Your task to perform on an android device: install app "Mercado Libre" Image 0: 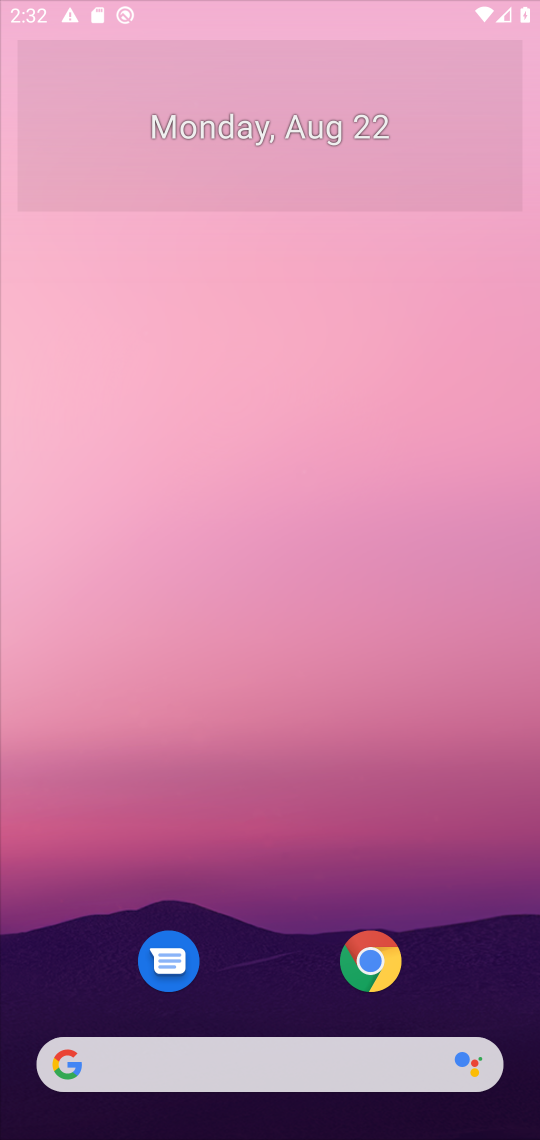
Step 0: press home button
Your task to perform on an android device: install app "Mercado Libre" Image 1: 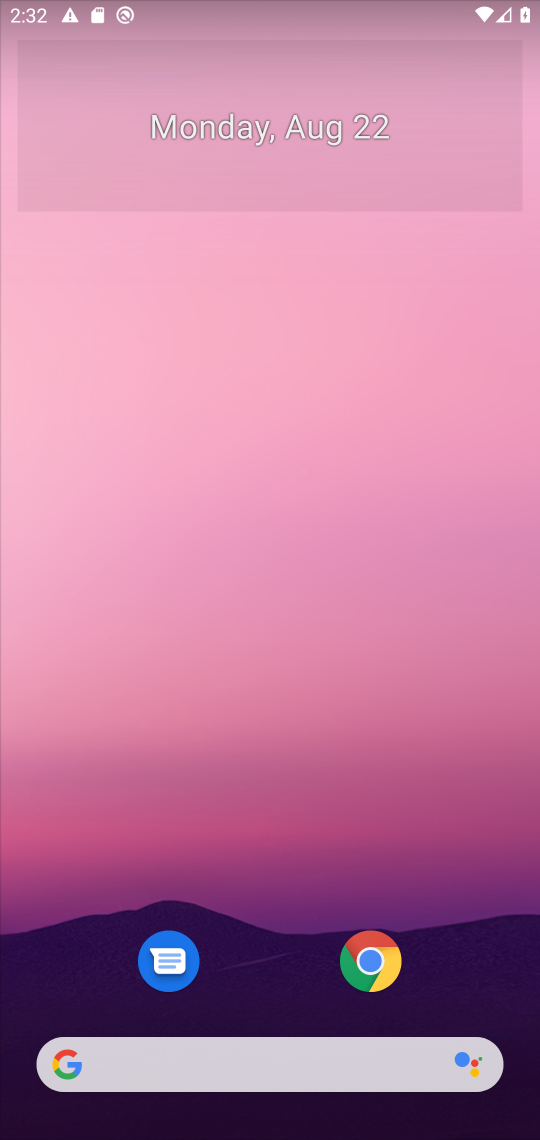
Step 1: drag from (443, 987) to (425, 389)
Your task to perform on an android device: install app "Mercado Libre" Image 2: 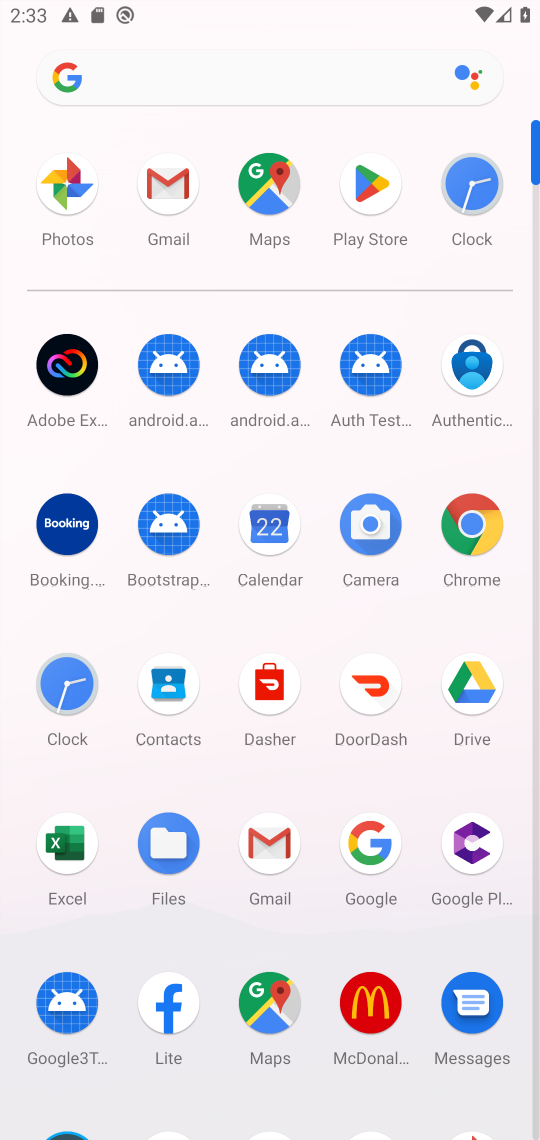
Step 2: click (372, 177)
Your task to perform on an android device: install app "Mercado Libre" Image 3: 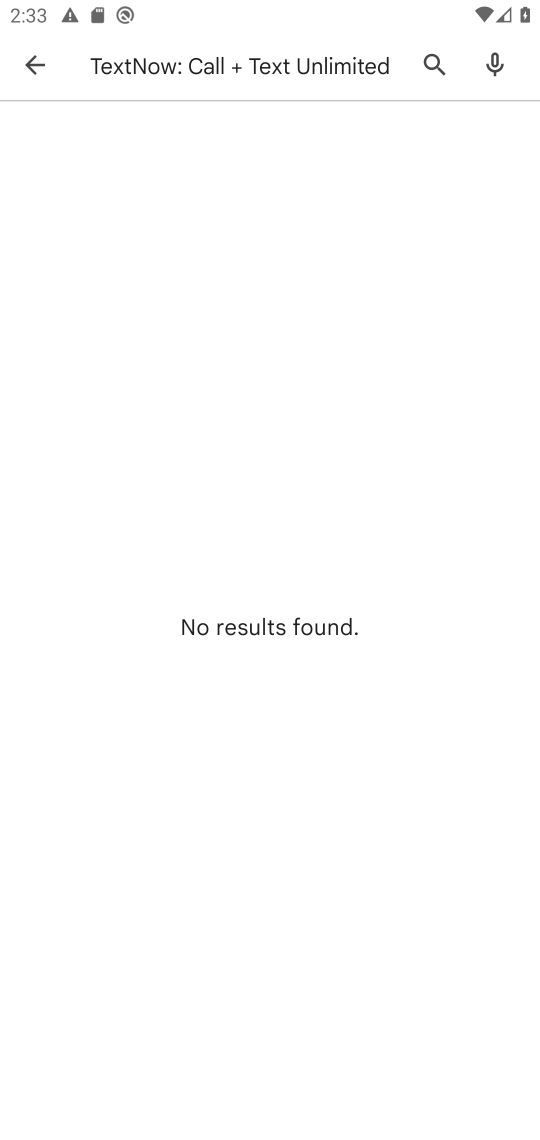
Step 3: press back button
Your task to perform on an android device: install app "Mercado Libre" Image 4: 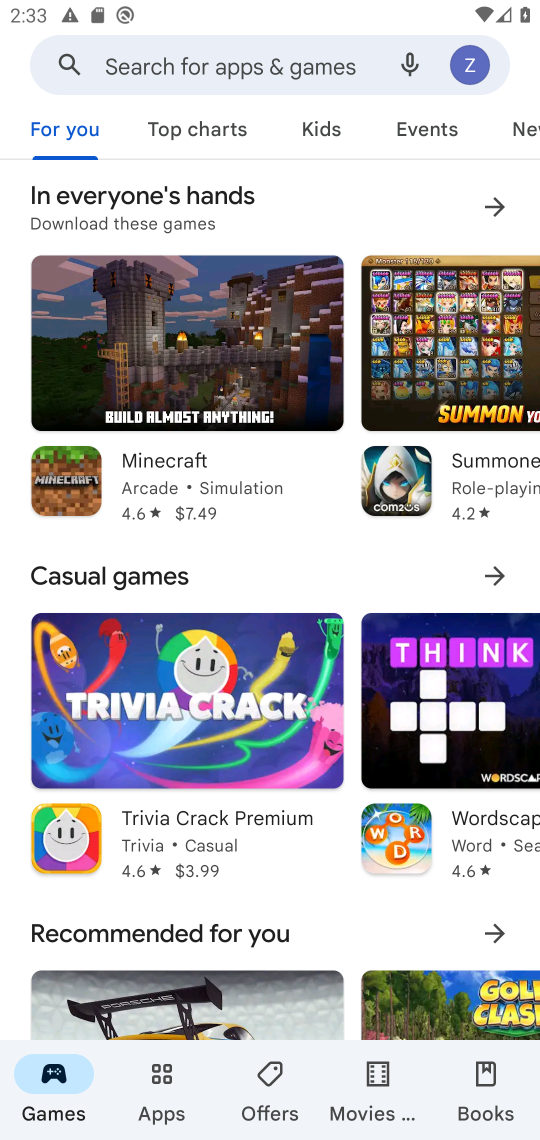
Step 4: click (297, 62)
Your task to perform on an android device: install app "Mercado Libre" Image 5: 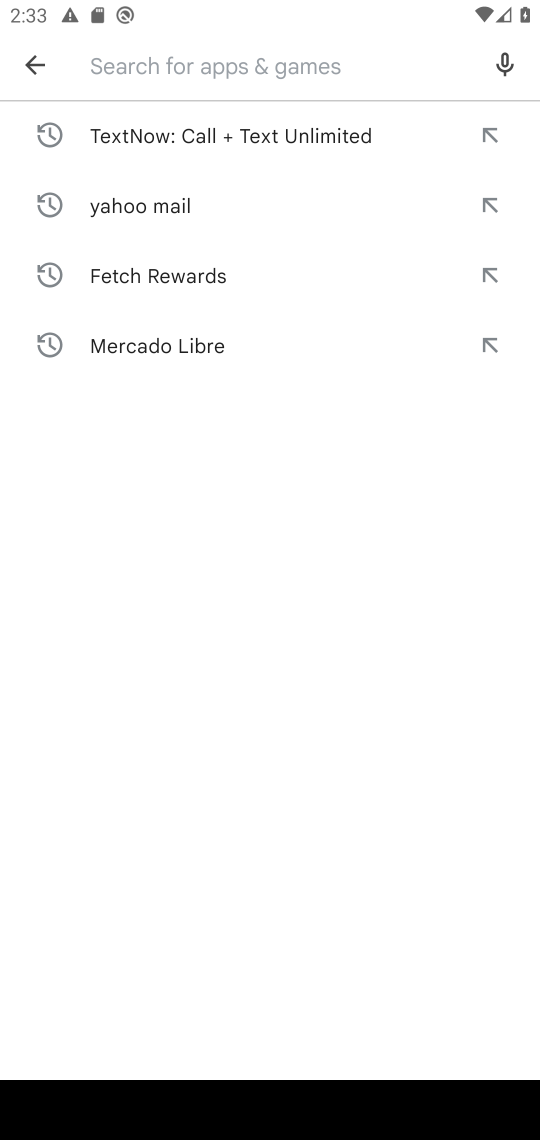
Step 5: type "Mercado Libre"
Your task to perform on an android device: install app "Mercado Libre" Image 6: 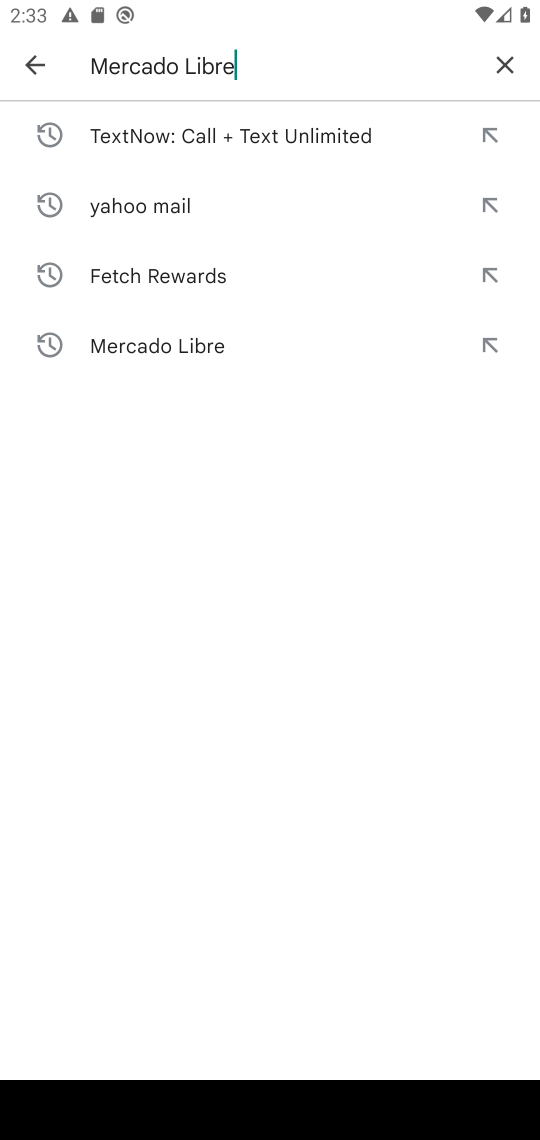
Step 6: press enter
Your task to perform on an android device: install app "Mercado Libre" Image 7: 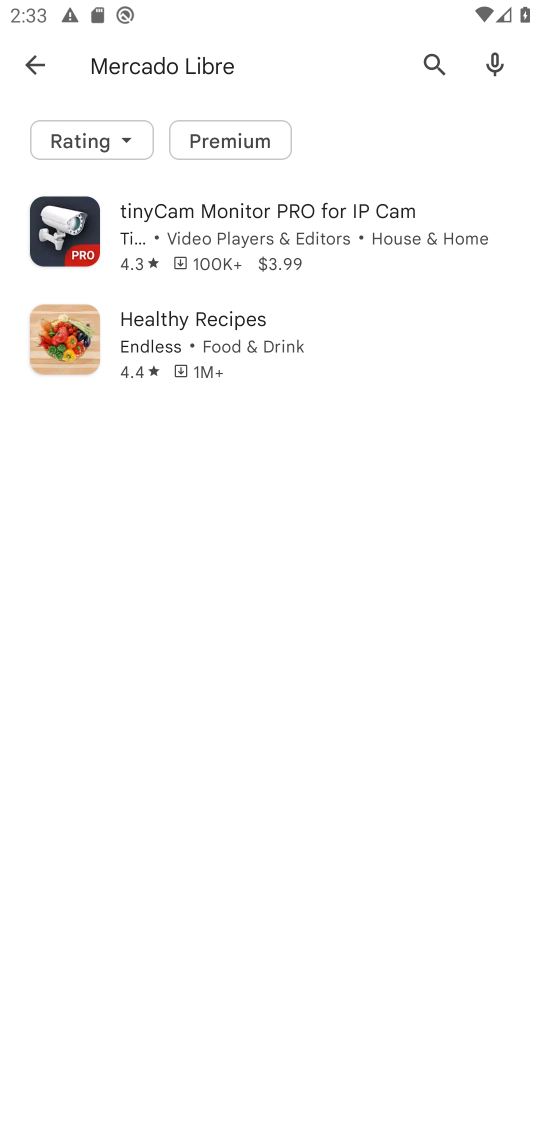
Step 7: task complete